Your task to perform on an android device: open sync settings in chrome Image 0: 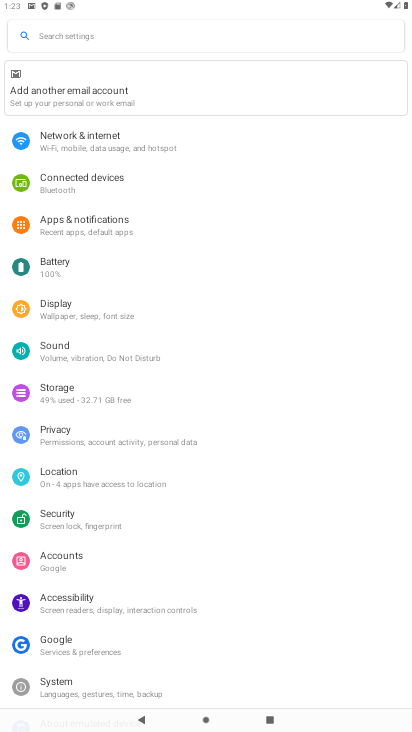
Step 0: press home button
Your task to perform on an android device: open sync settings in chrome Image 1: 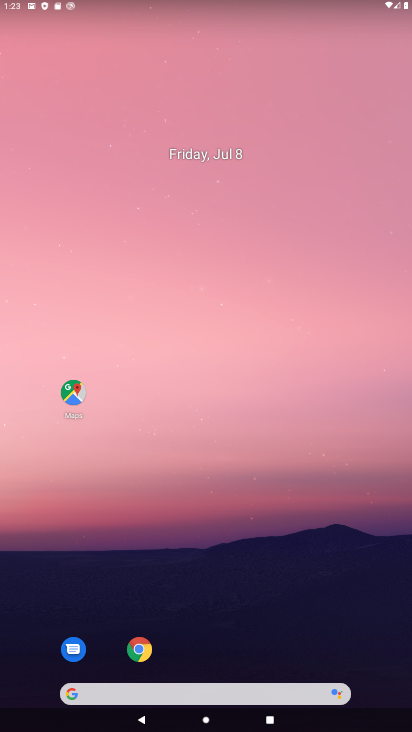
Step 1: drag from (255, 580) to (248, 79)
Your task to perform on an android device: open sync settings in chrome Image 2: 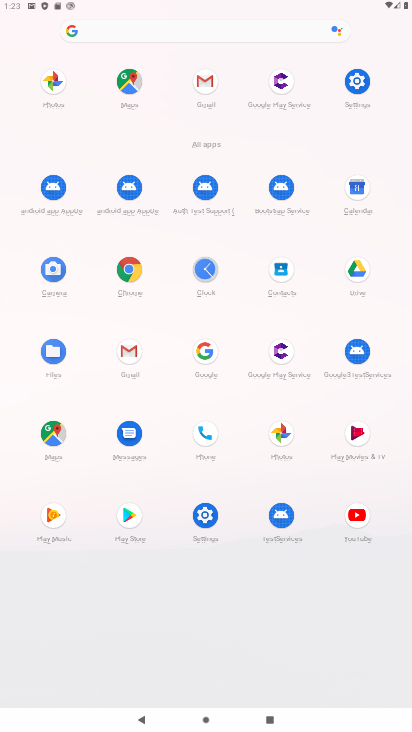
Step 2: click (128, 275)
Your task to perform on an android device: open sync settings in chrome Image 3: 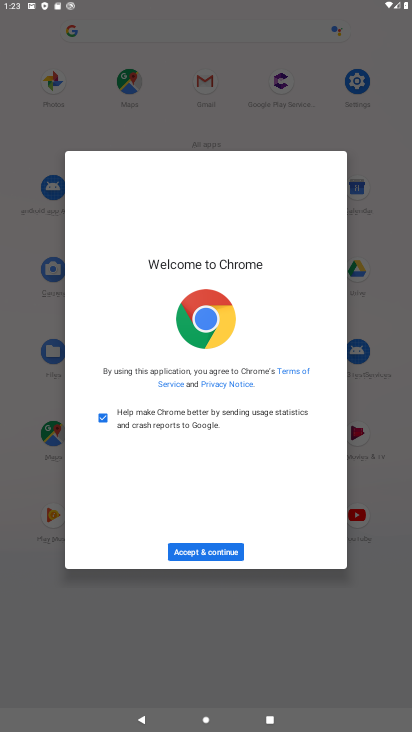
Step 3: click (206, 544)
Your task to perform on an android device: open sync settings in chrome Image 4: 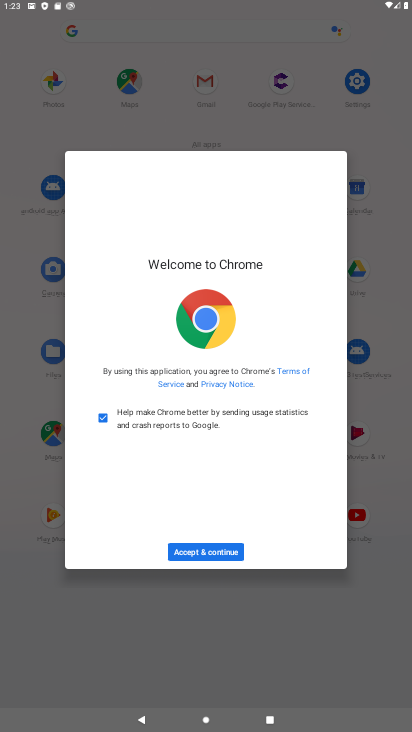
Step 4: click (206, 544)
Your task to perform on an android device: open sync settings in chrome Image 5: 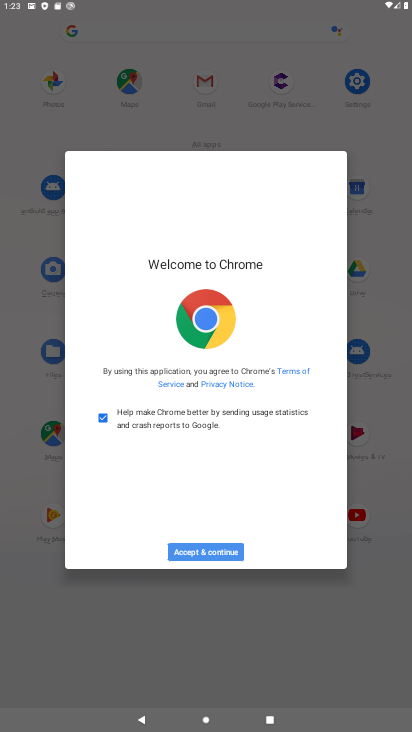
Step 5: click (207, 546)
Your task to perform on an android device: open sync settings in chrome Image 6: 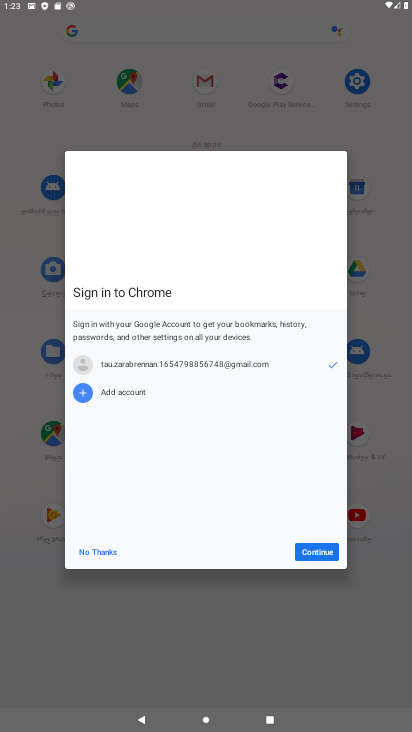
Step 6: click (313, 546)
Your task to perform on an android device: open sync settings in chrome Image 7: 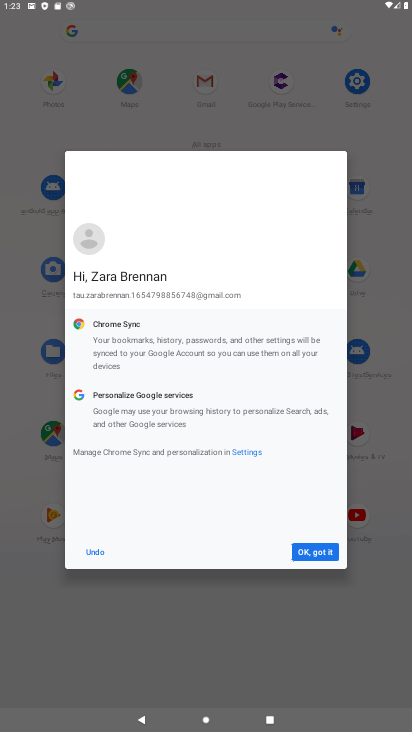
Step 7: click (300, 551)
Your task to perform on an android device: open sync settings in chrome Image 8: 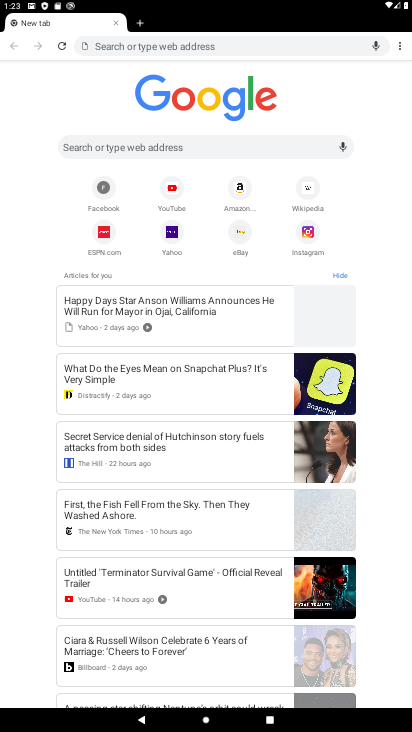
Step 8: drag from (400, 46) to (305, 216)
Your task to perform on an android device: open sync settings in chrome Image 9: 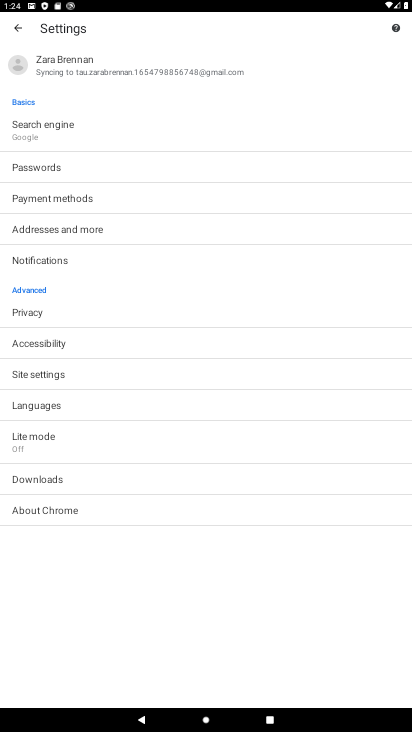
Step 9: click (130, 65)
Your task to perform on an android device: open sync settings in chrome Image 10: 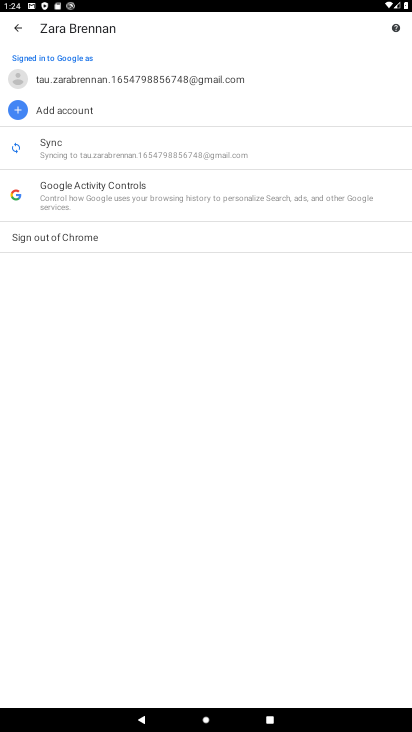
Step 10: click (100, 144)
Your task to perform on an android device: open sync settings in chrome Image 11: 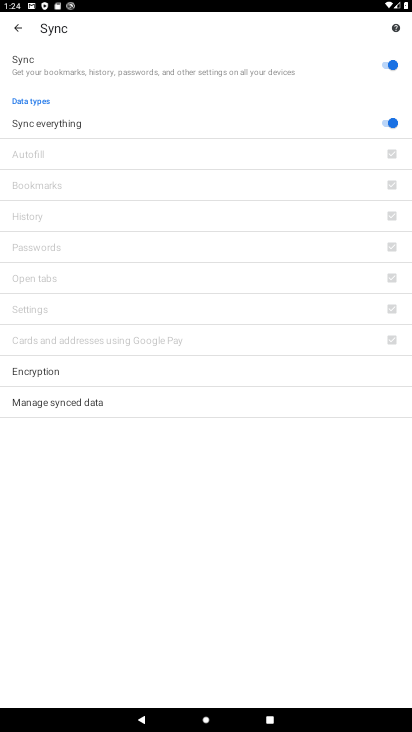
Step 11: task complete